Your task to perform on an android device: Turn on the flashlight Image 0: 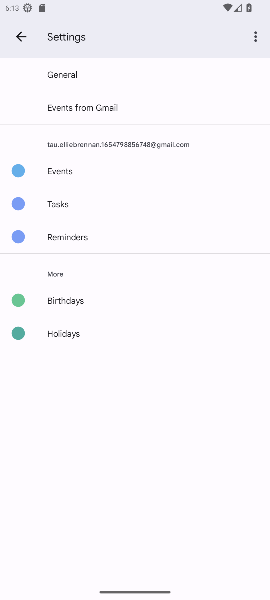
Step 0: task impossible